Your task to perform on an android device: delete location history Image 0: 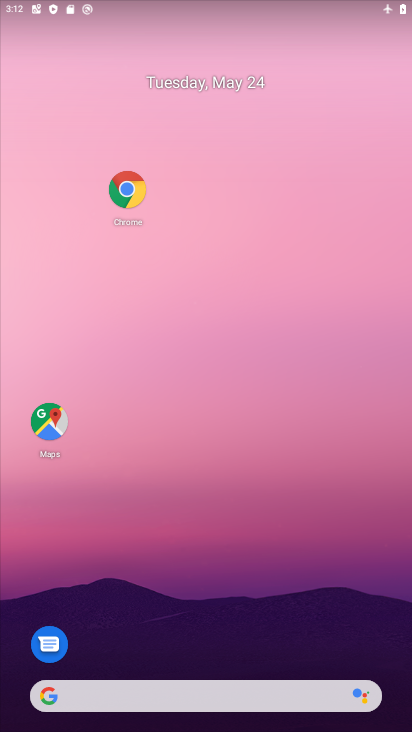
Step 0: drag from (261, 524) to (275, 128)
Your task to perform on an android device: delete location history Image 1: 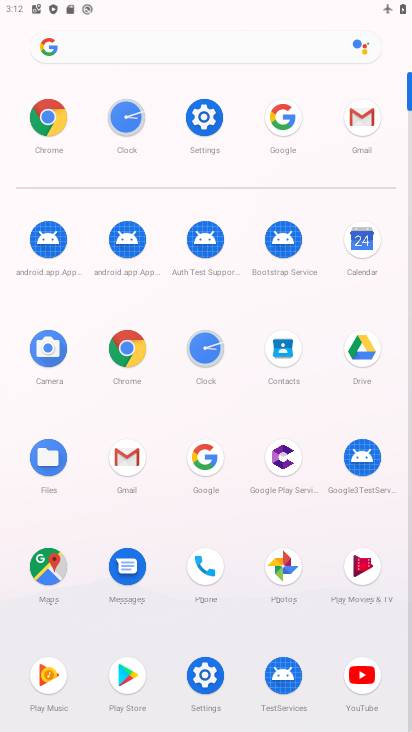
Step 1: click (210, 115)
Your task to perform on an android device: delete location history Image 2: 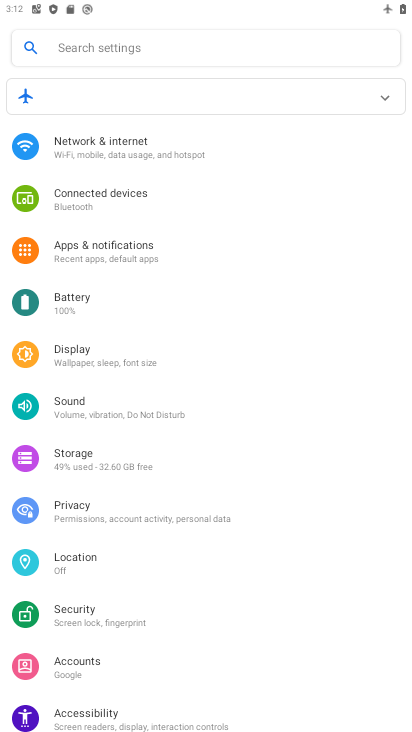
Step 2: click (123, 567)
Your task to perform on an android device: delete location history Image 3: 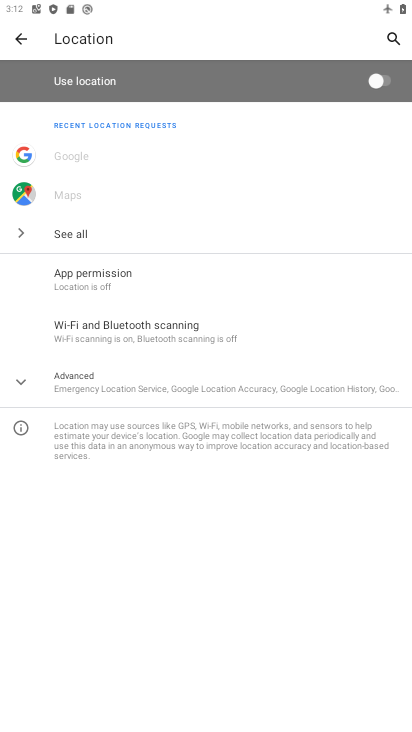
Step 3: click (121, 383)
Your task to perform on an android device: delete location history Image 4: 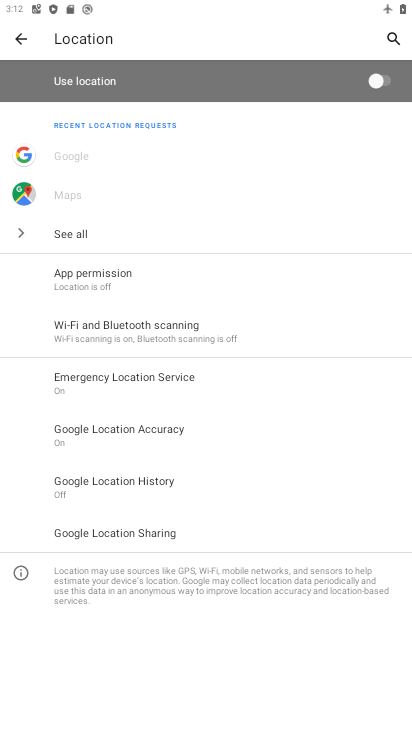
Step 4: click (153, 475)
Your task to perform on an android device: delete location history Image 5: 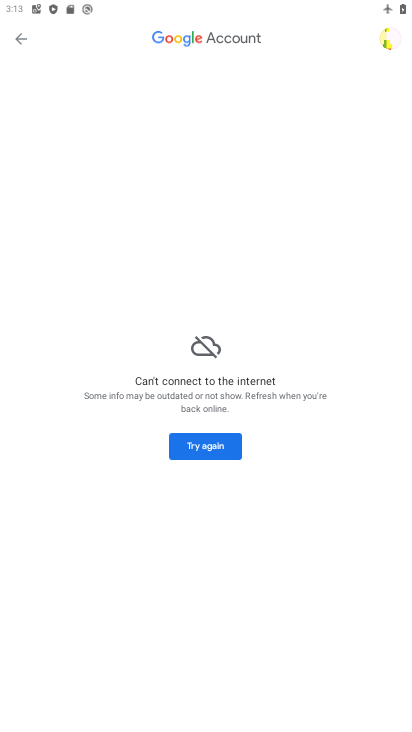
Step 5: task complete